Your task to perform on an android device: set default search engine in the chrome app Image 0: 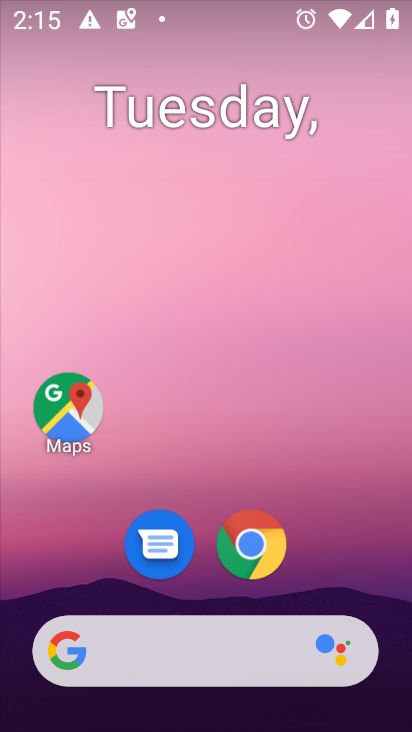
Step 0: drag from (370, 560) to (144, 33)
Your task to perform on an android device: set default search engine in the chrome app Image 1: 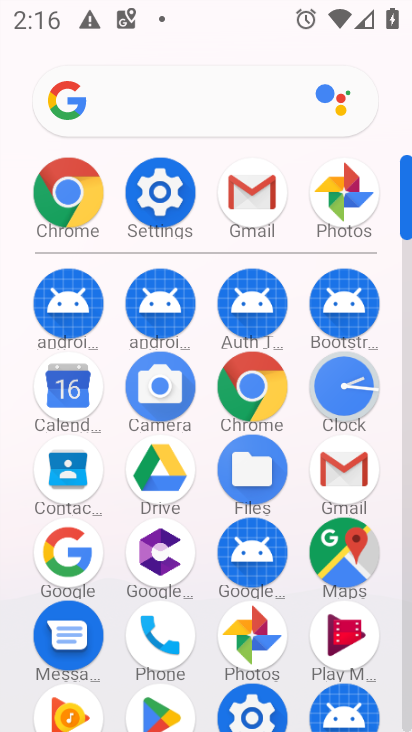
Step 1: click (250, 383)
Your task to perform on an android device: set default search engine in the chrome app Image 2: 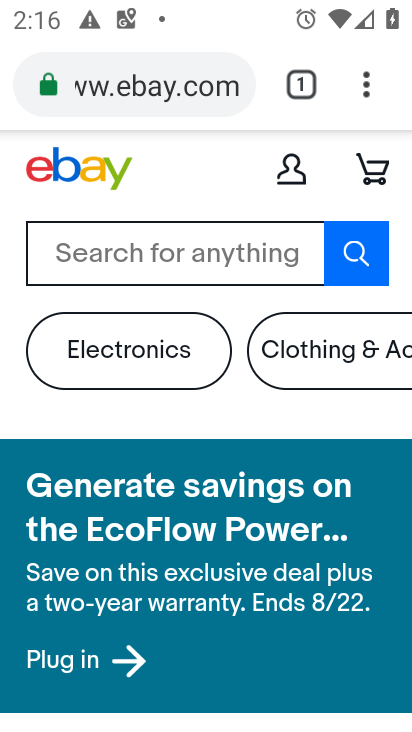
Step 2: drag from (364, 77) to (160, 628)
Your task to perform on an android device: set default search engine in the chrome app Image 3: 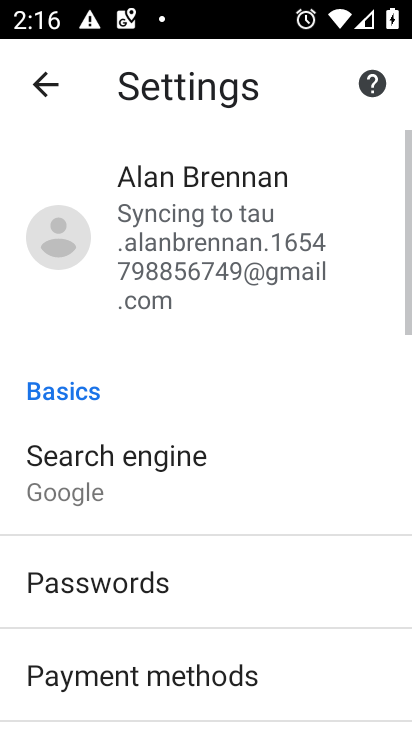
Step 3: click (173, 513)
Your task to perform on an android device: set default search engine in the chrome app Image 4: 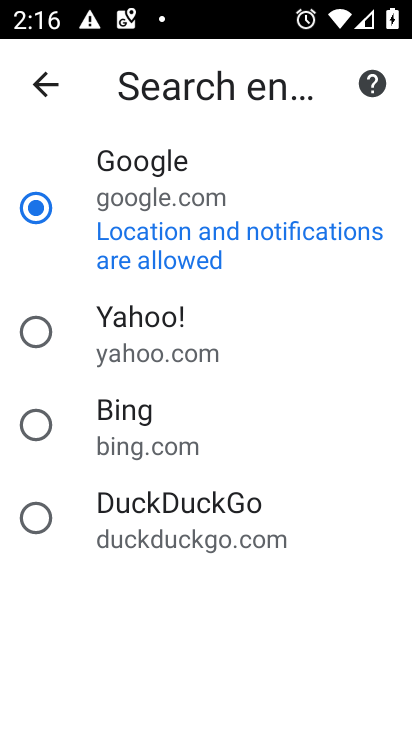
Step 4: task complete